Your task to perform on an android device: find photos in the google photos app Image 0: 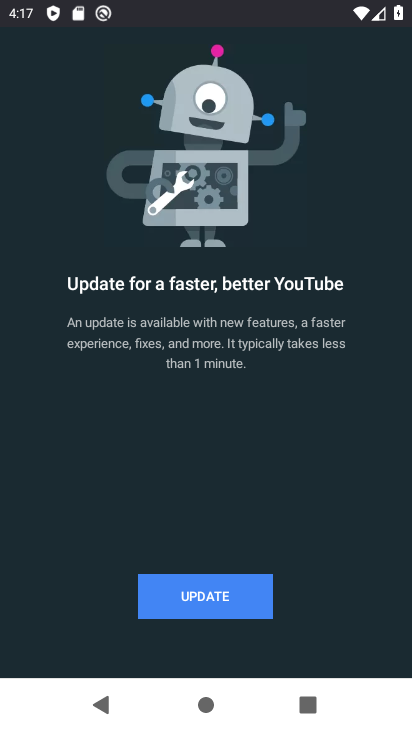
Step 0: press home button
Your task to perform on an android device: find photos in the google photos app Image 1: 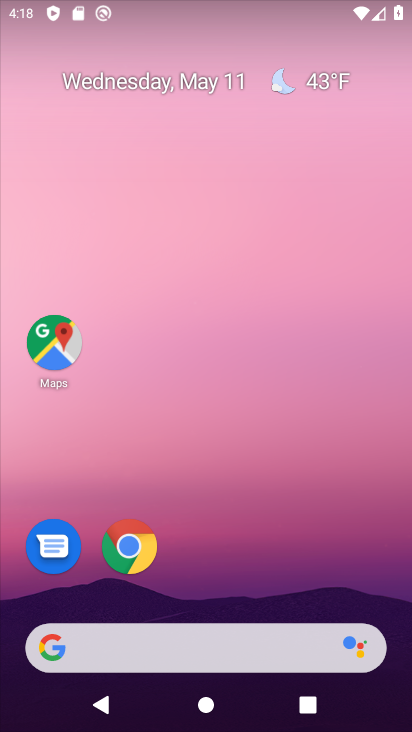
Step 1: drag from (141, 619) to (151, 224)
Your task to perform on an android device: find photos in the google photos app Image 2: 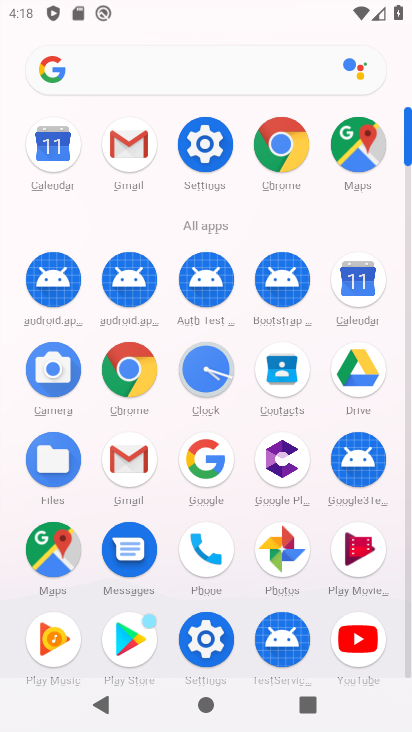
Step 2: click (275, 548)
Your task to perform on an android device: find photos in the google photos app Image 3: 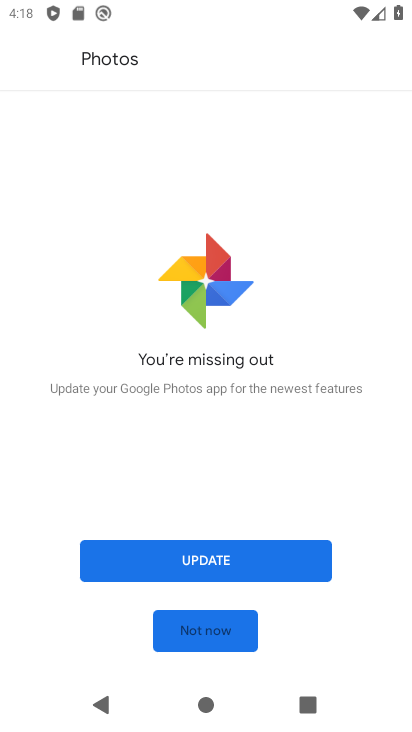
Step 3: click (219, 628)
Your task to perform on an android device: find photos in the google photos app Image 4: 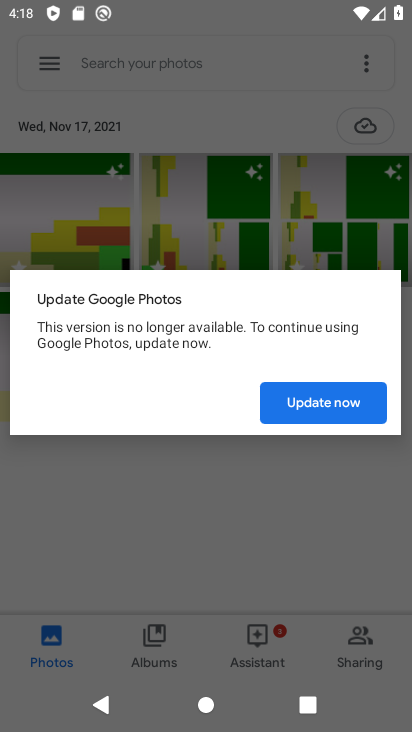
Step 4: click (296, 408)
Your task to perform on an android device: find photos in the google photos app Image 5: 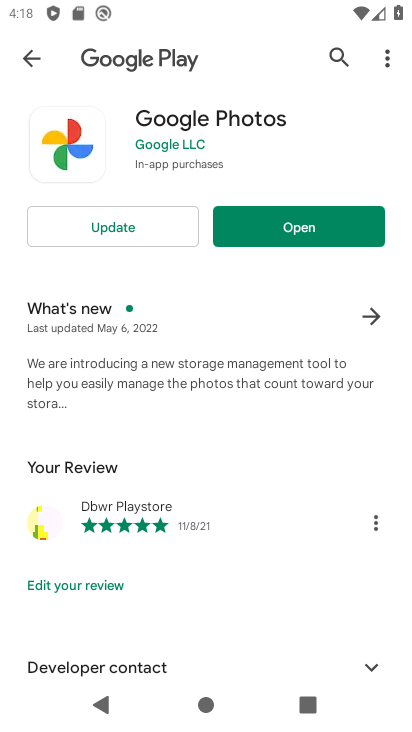
Step 5: click (108, 226)
Your task to perform on an android device: find photos in the google photos app Image 6: 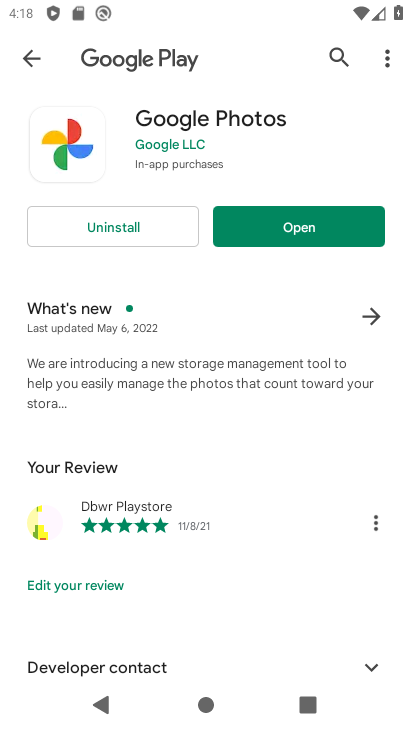
Step 6: click (333, 226)
Your task to perform on an android device: find photos in the google photos app Image 7: 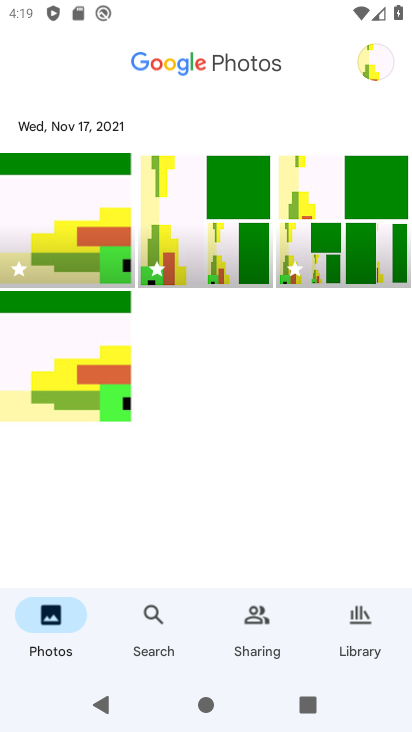
Step 7: click (145, 615)
Your task to perform on an android device: find photos in the google photos app Image 8: 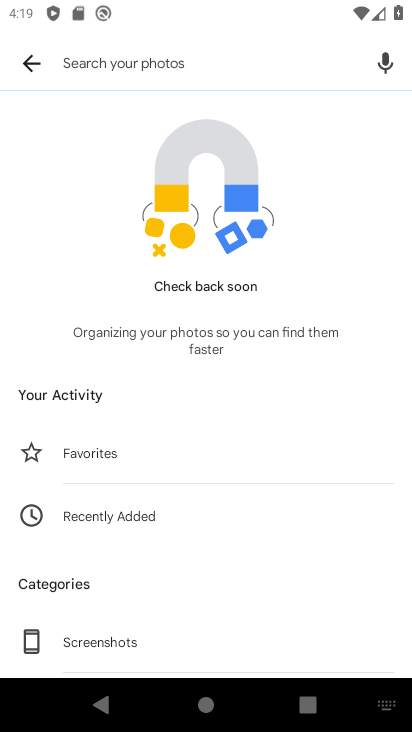
Step 8: click (103, 53)
Your task to perform on an android device: find photos in the google photos app Image 9: 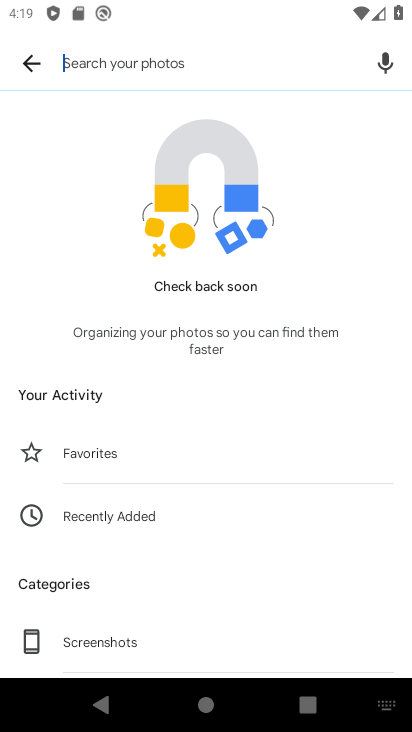
Step 9: type "album07"
Your task to perform on an android device: find photos in the google photos app Image 10: 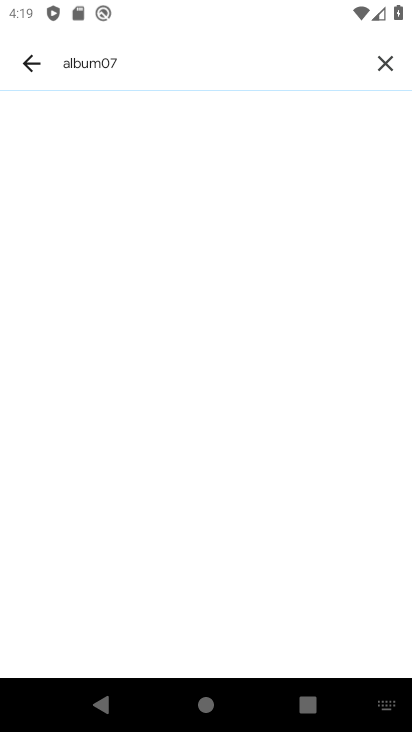
Step 10: click (389, 64)
Your task to perform on an android device: find photos in the google photos app Image 11: 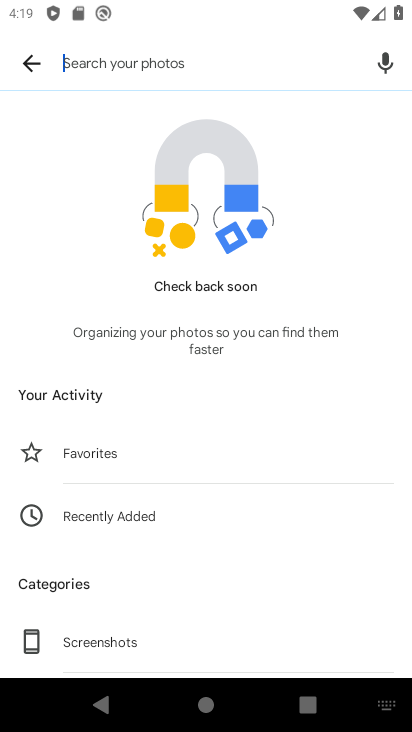
Step 11: type "album 07"
Your task to perform on an android device: find photos in the google photos app Image 12: 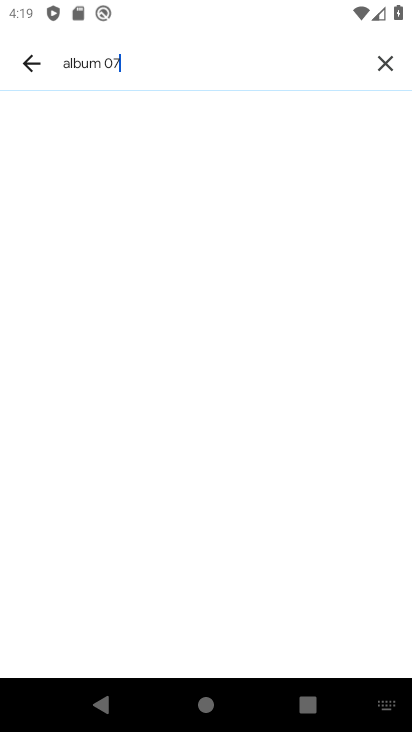
Step 12: click (390, 66)
Your task to perform on an android device: find photos in the google photos app Image 13: 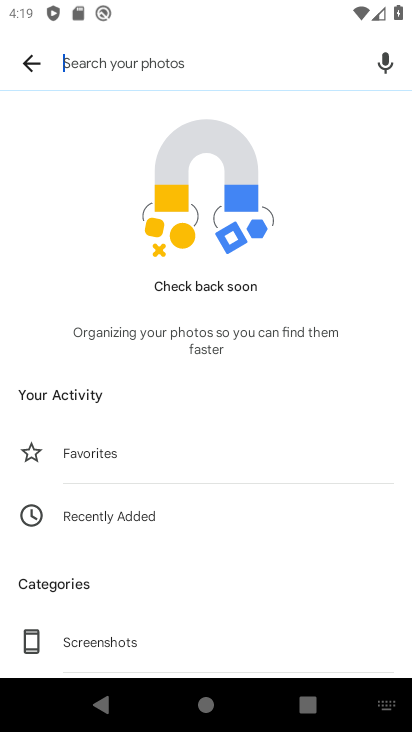
Step 13: type "album 09"
Your task to perform on an android device: find photos in the google photos app Image 14: 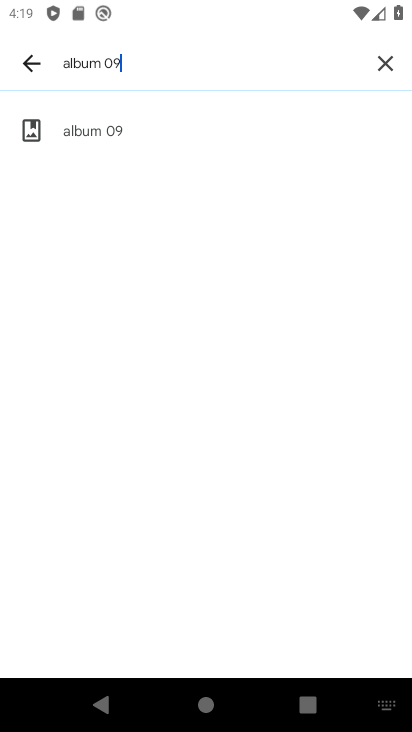
Step 14: click (92, 133)
Your task to perform on an android device: find photos in the google photos app Image 15: 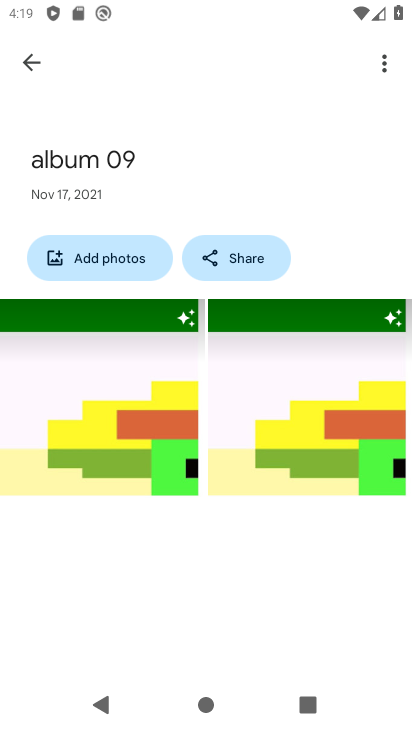
Step 15: task complete